Your task to perform on an android device: Is it going to rain today? Image 0: 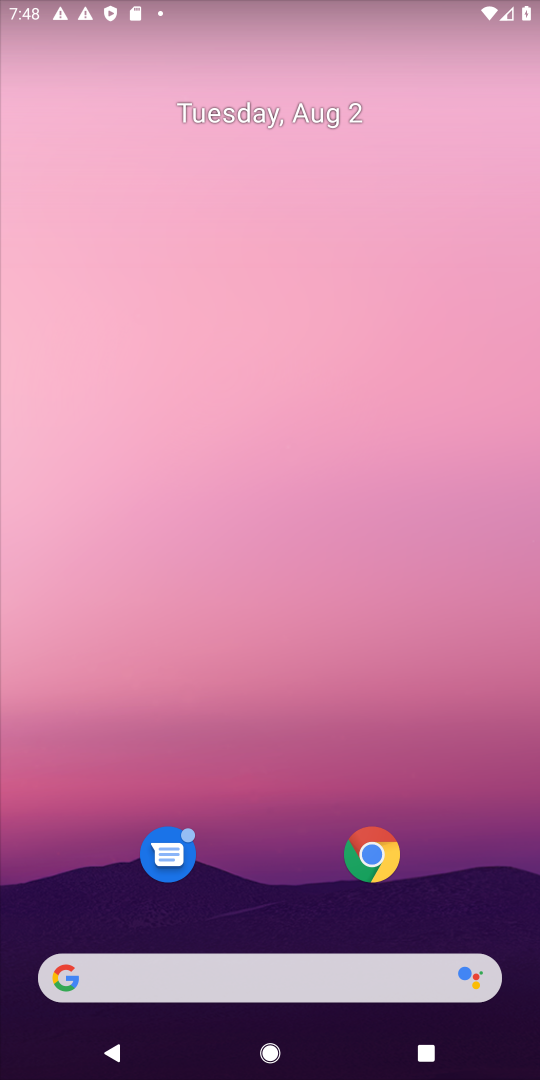
Step 0: press home button
Your task to perform on an android device: Is it going to rain today? Image 1: 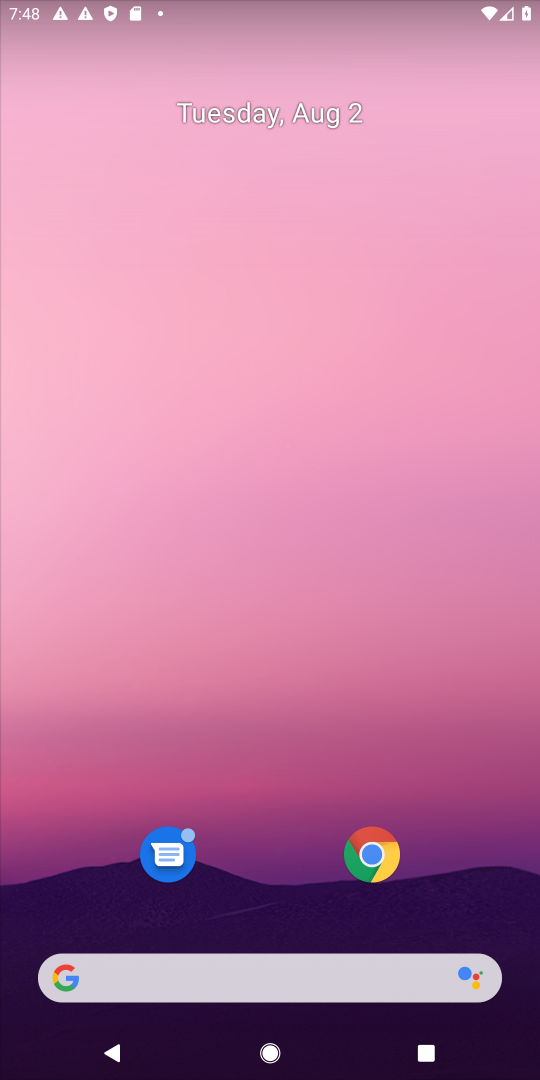
Step 1: press home button
Your task to perform on an android device: Is it going to rain today? Image 2: 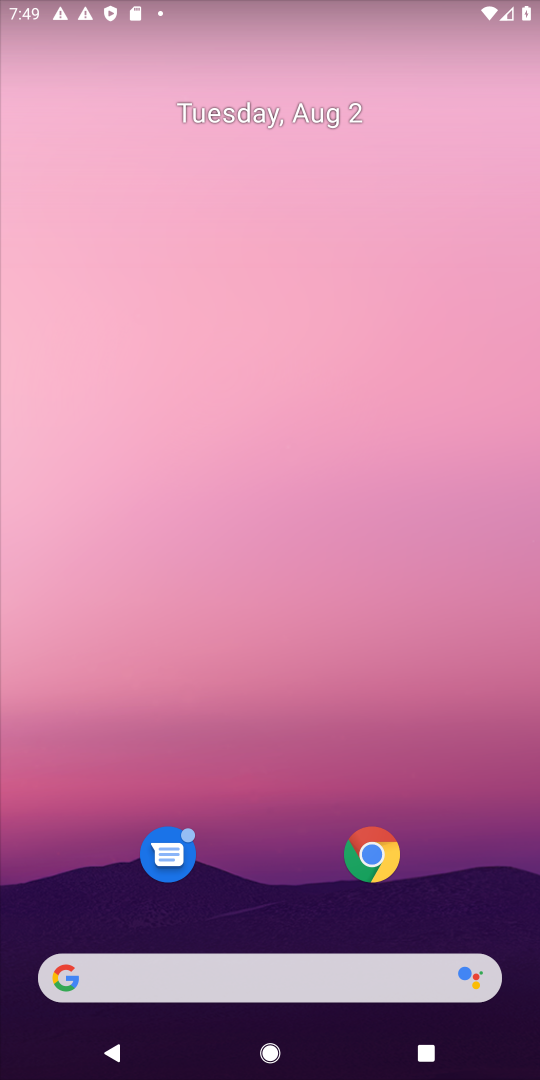
Step 2: click (282, 981)
Your task to perform on an android device: Is it going to rain today? Image 3: 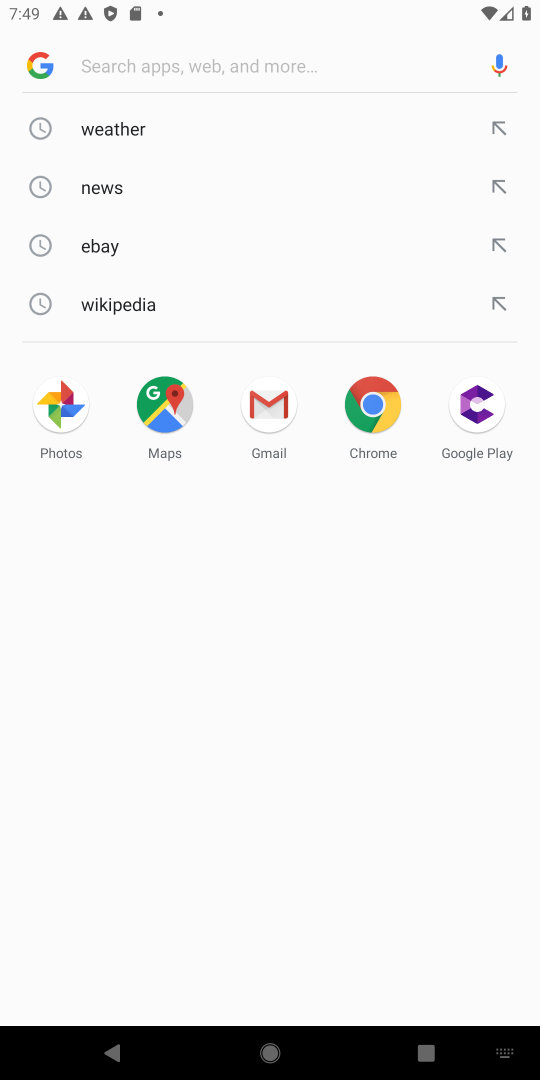
Step 3: click (153, 117)
Your task to perform on an android device: Is it going to rain today? Image 4: 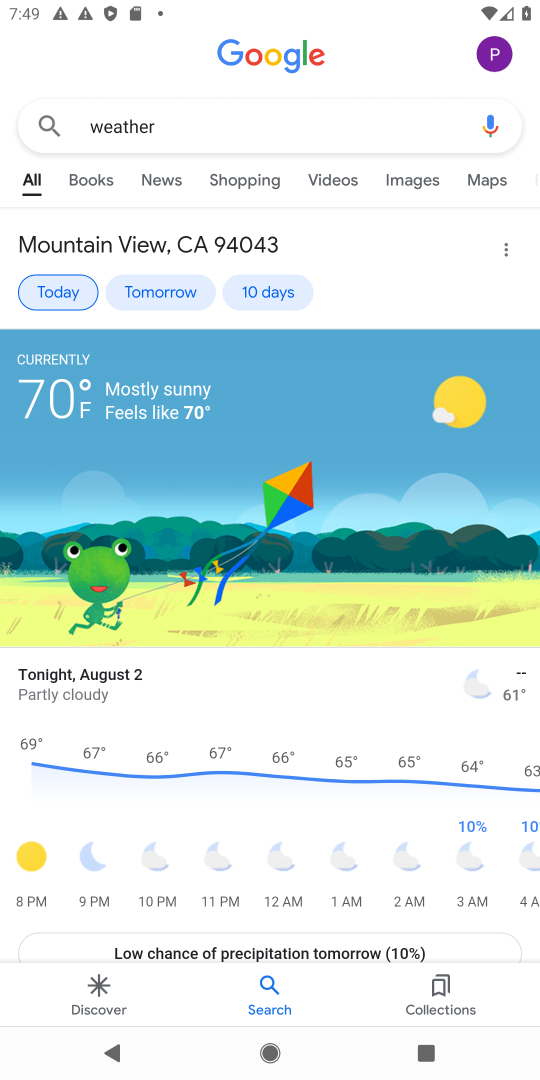
Step 4: task complete